Your task to perform on an android device: Go to Google maps Image 0: 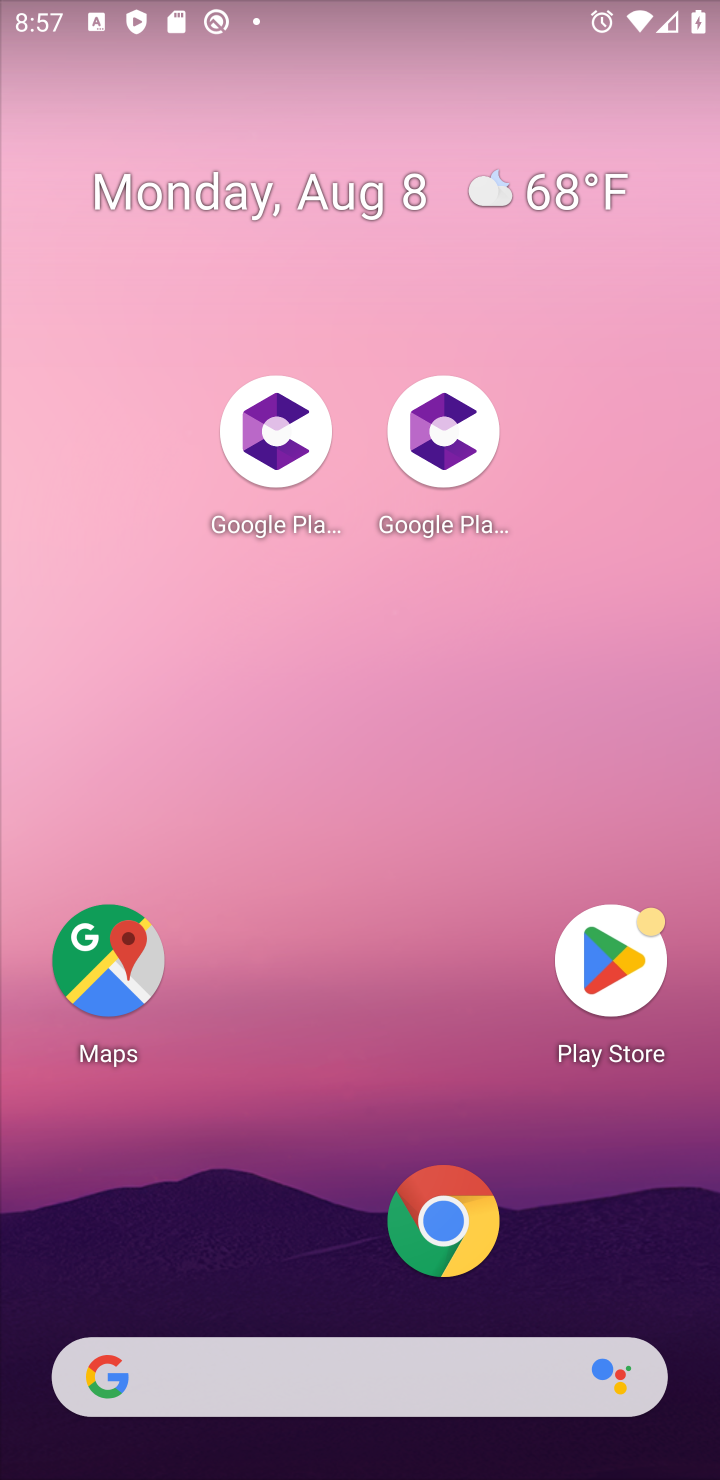
Step 0: press home button
Your task to perform on an android device: Go to Google maps Image 1: 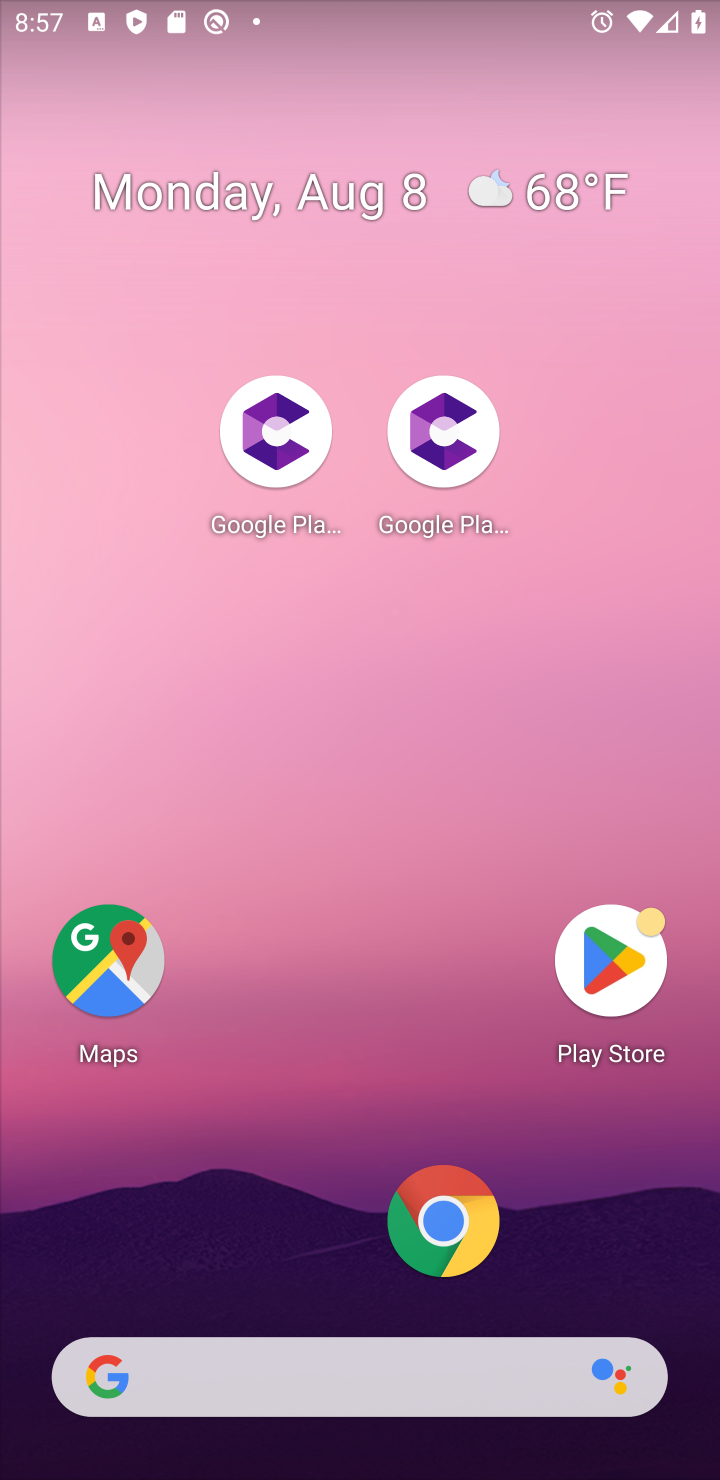
Step 1: drag from (194, 1267) to (358, 266)
Your task to perform on an android device: Go to Google maps Image 2: 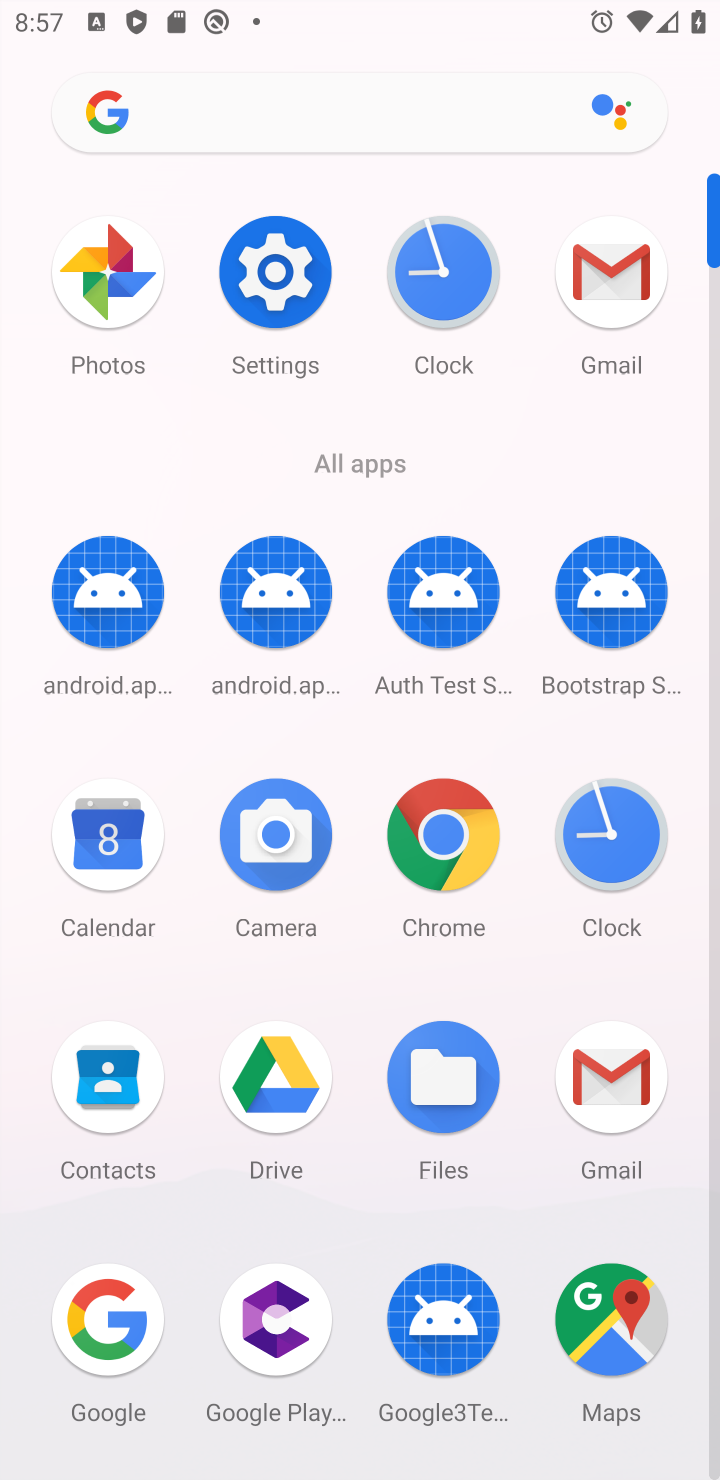
Step 2: click (600, 1302)
Your task to perform on an android device: Go to Google maps Image 3: 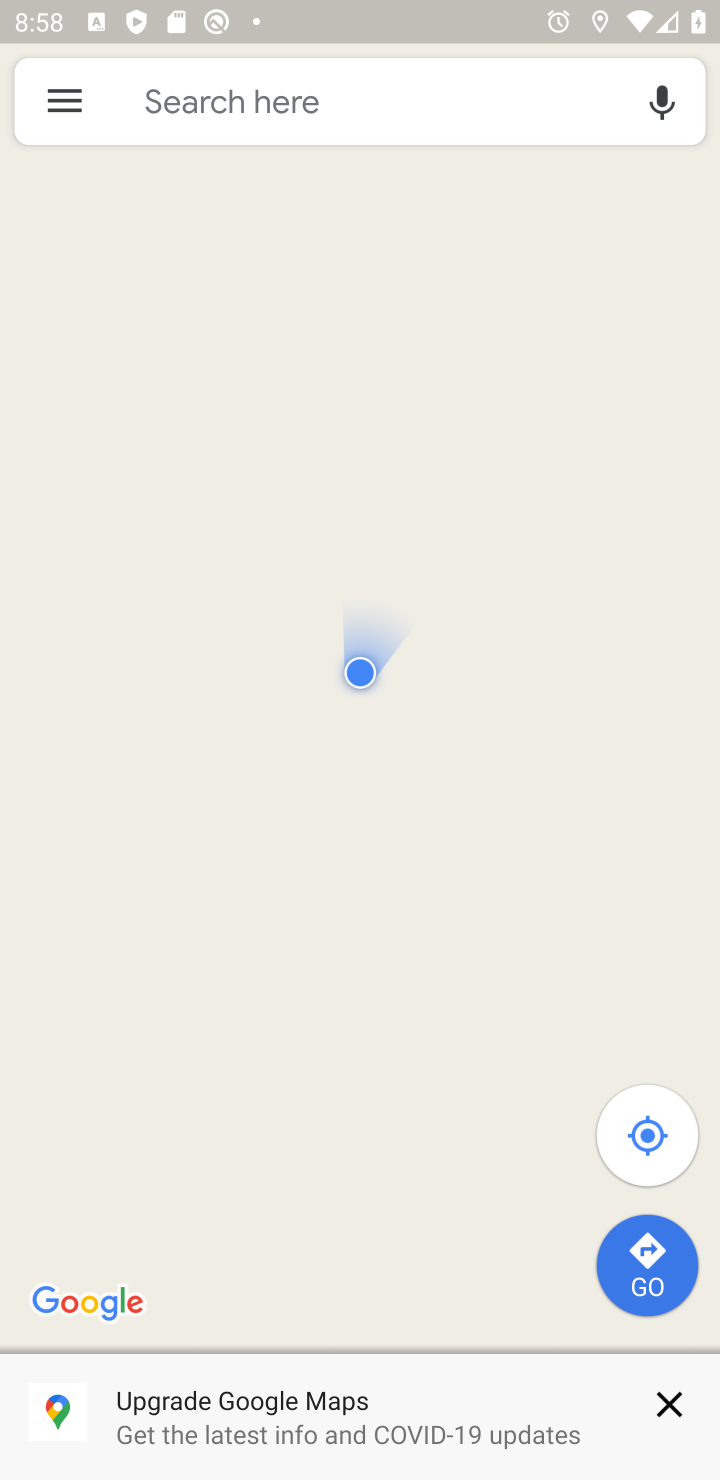
Step 3: task complete